Your task to perform on an android device: Go to Android settings Image 0: 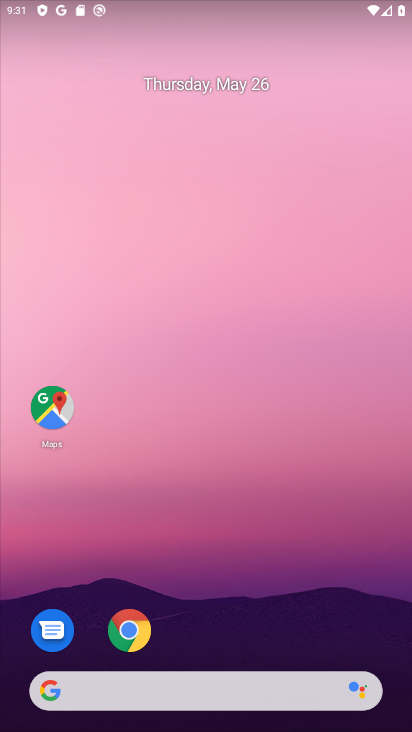
Step 0: drag from (195, 660) to (157, 309)
Your task to perform on an android device: Go to Android settings Image 1: 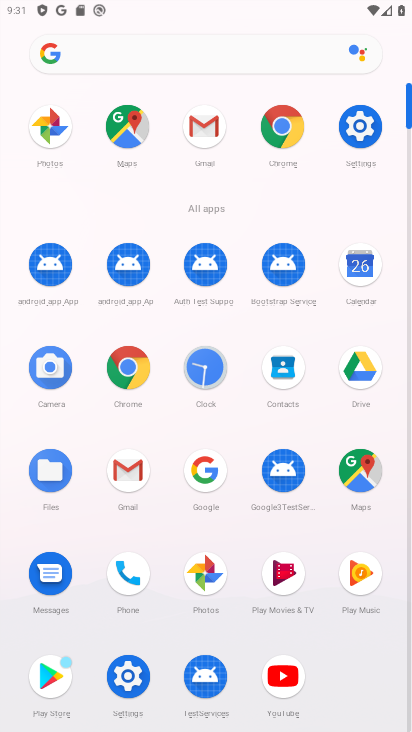
Step 1: click (363, 115)
Your task to perform on an android device: Go to Android settings Image 2: 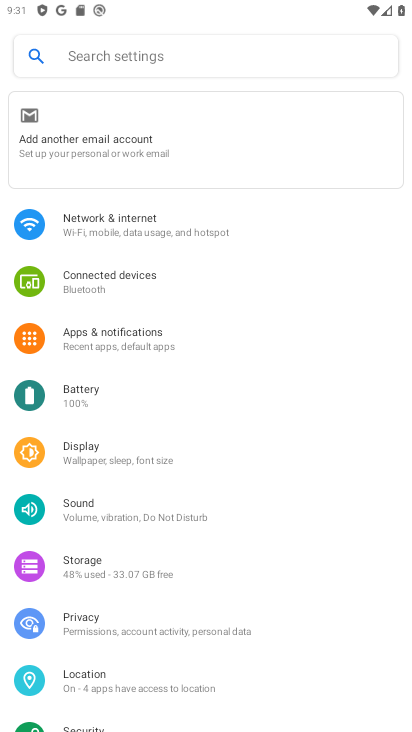
Step 2: task complete